Your task to perform on an android device: add a label to a message in the gmail app Image 0: 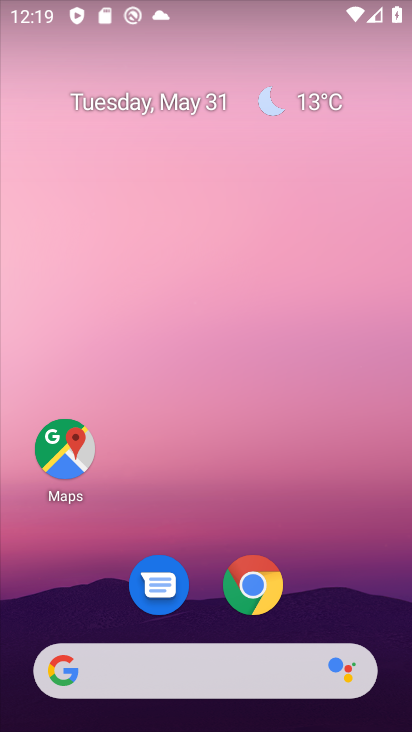
Step 0: drag from (207, 499) to (240, 20)
Your task to perform on an android device: add a label to a message in the gmail app Image 1: 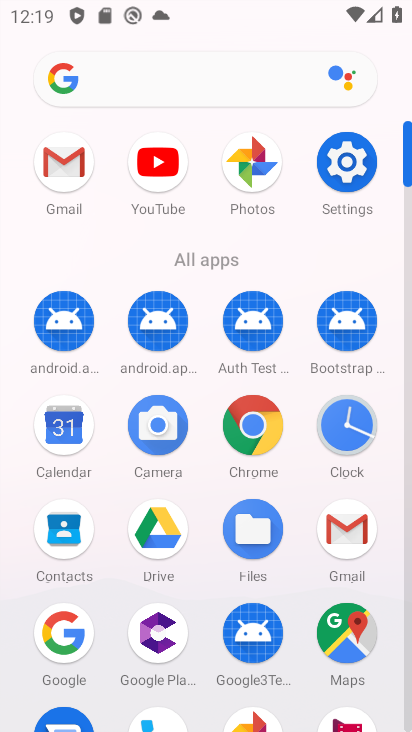
Step 1: click (74, 172)
Your task to perform on an android device: add a label to a message in the gmail app Image 2: 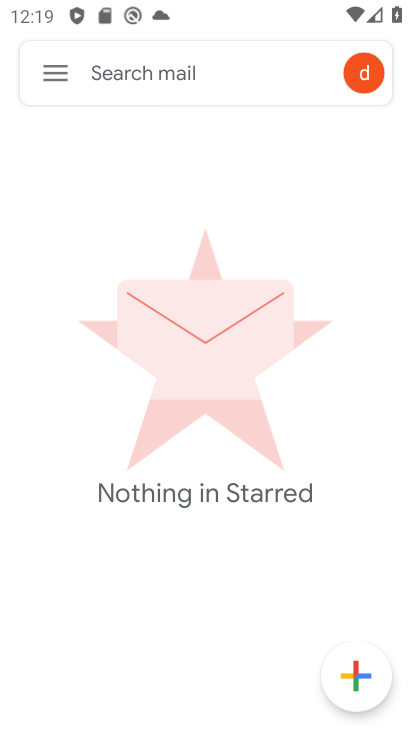
Step 2: click (55, 71)
Your task to perform on an android device: add a label to a message in the gmail app Image 3: 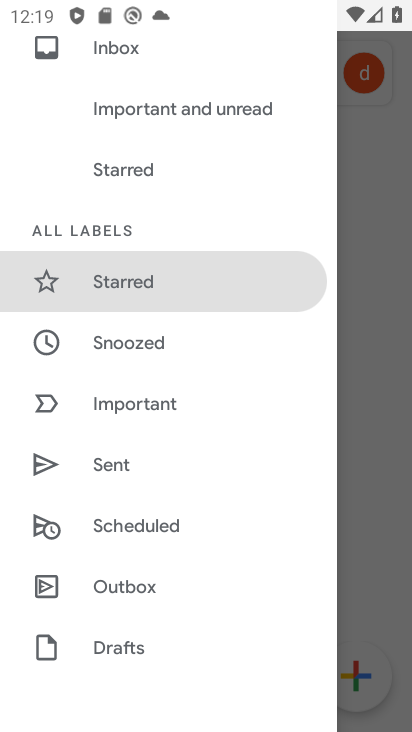
Step 3: drag from (183, 590) to (208, 221)
Your task to perform on an android device: add a label to a message in the gmail app Image 4: 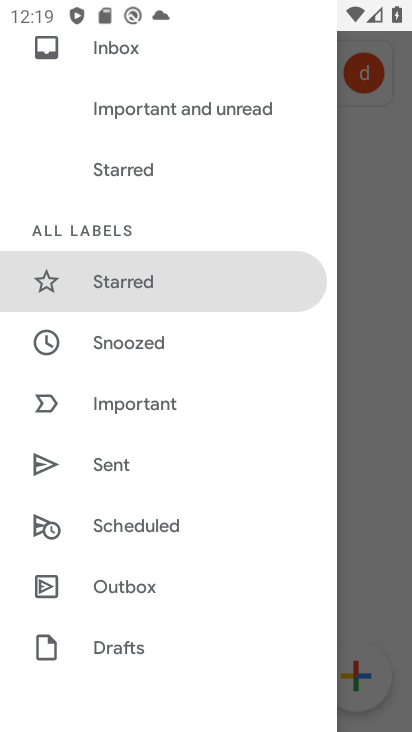
Step 4: drag from (186, 478) to (231, 89)
Your task to perform on an android device: add a label to a message in the gmail app Image 5: 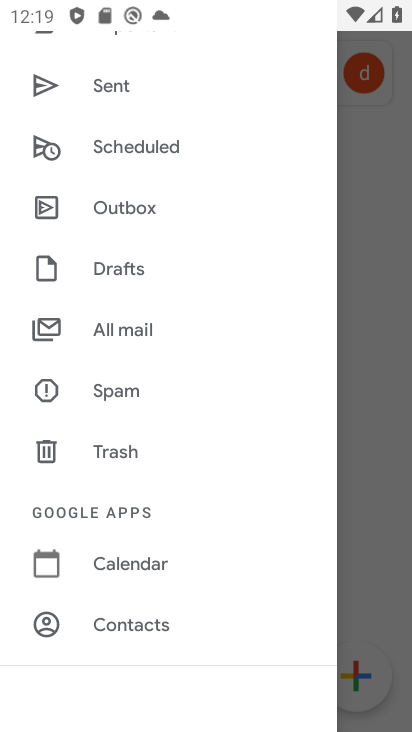
Step 5: click (201, 335)
Your task to perform on an android device: add a label to a message in the gmail app Image 6: 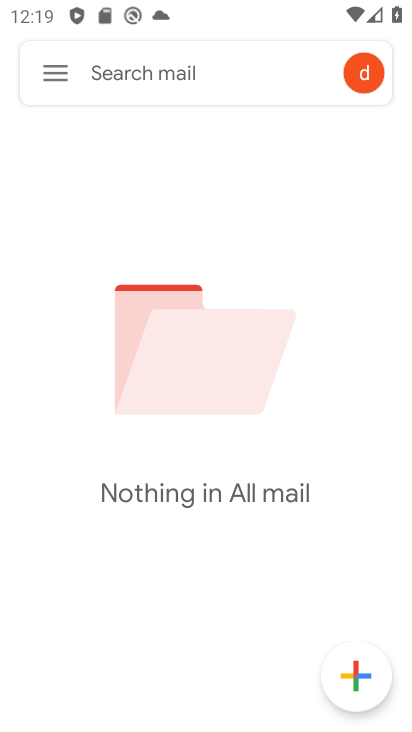
Step 6: task complete